Your task to perform on an android device: turn off smart reply in the gmail app Image 0: 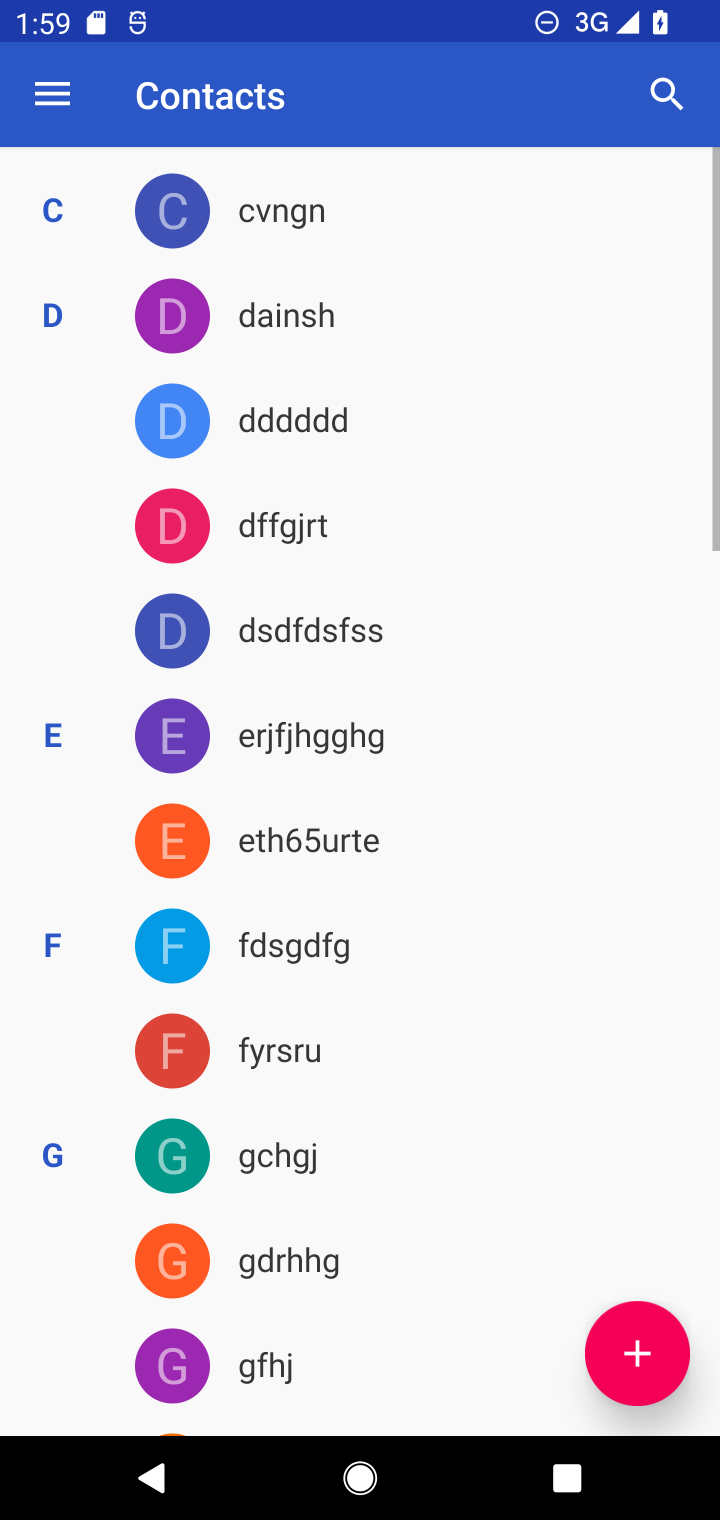
Step 0: press home button
Your task to perform on an android device: turn off smart reply in the gmail app Image 1: 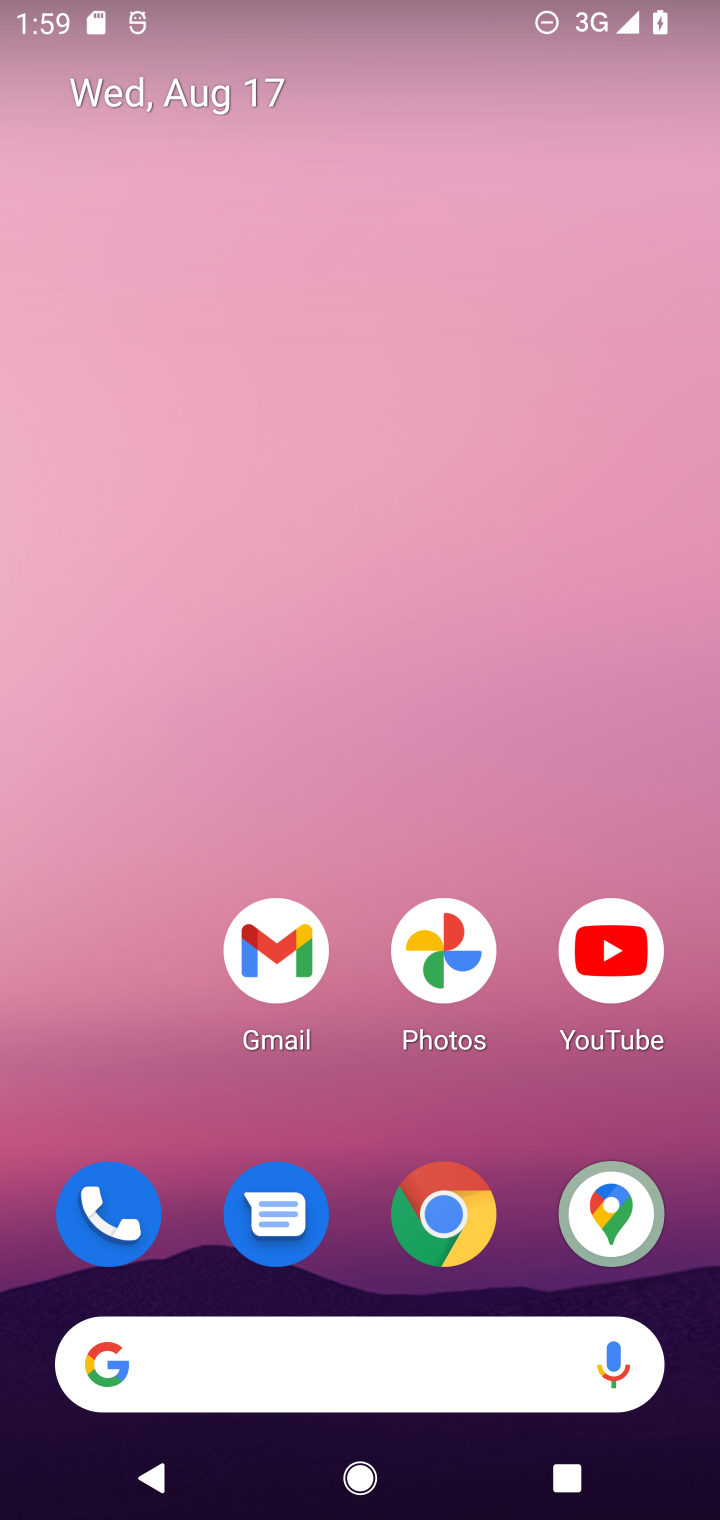
Step 1: click (272, 940)
Your task to perform on an android device: turn off smart reply in the gmail app Image 2: 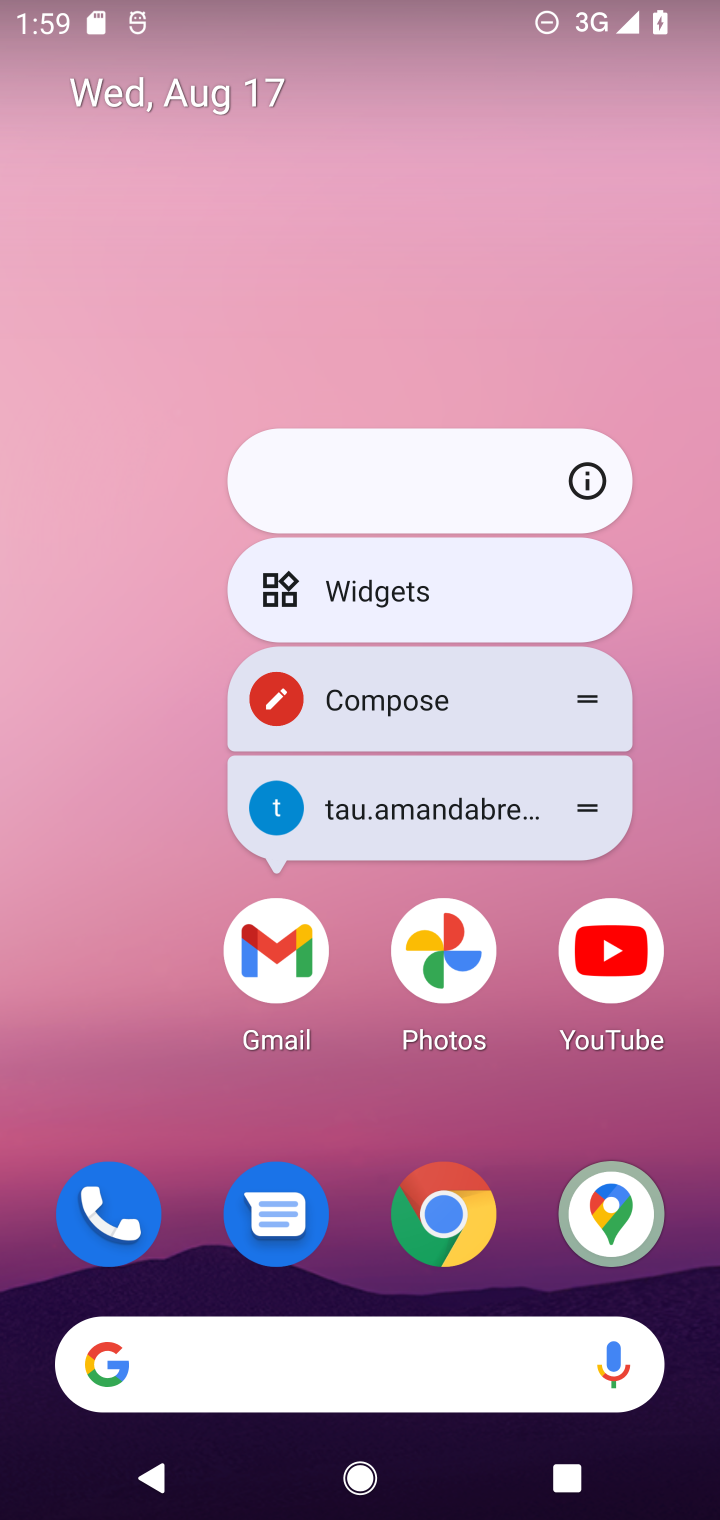
Step 2: click (272, 940)
Your task to perform on an android device: turn off smart reply in the gmail app Image 3: 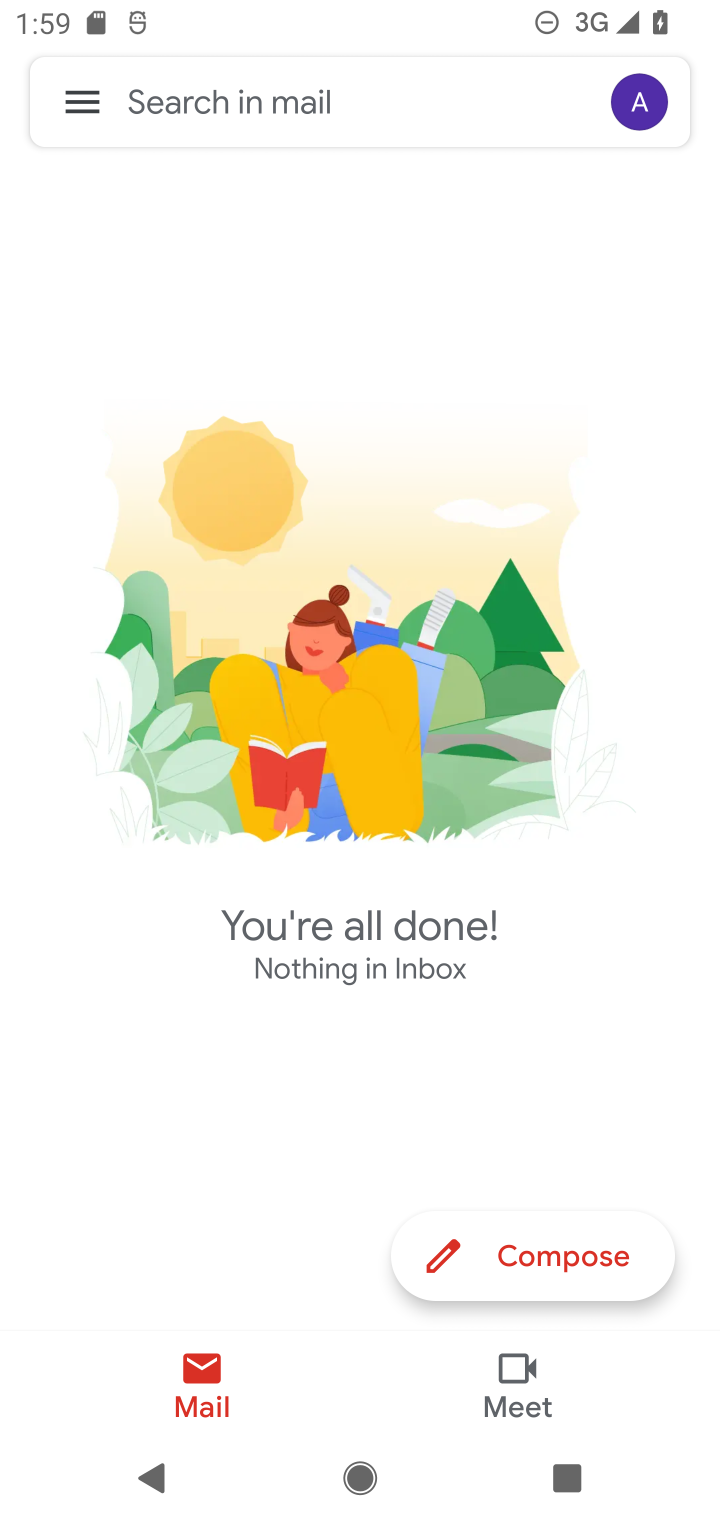
Step 3: click (80, 100)
Your task to perform on an android device: turn off smart reply in the gmail app Image 4: 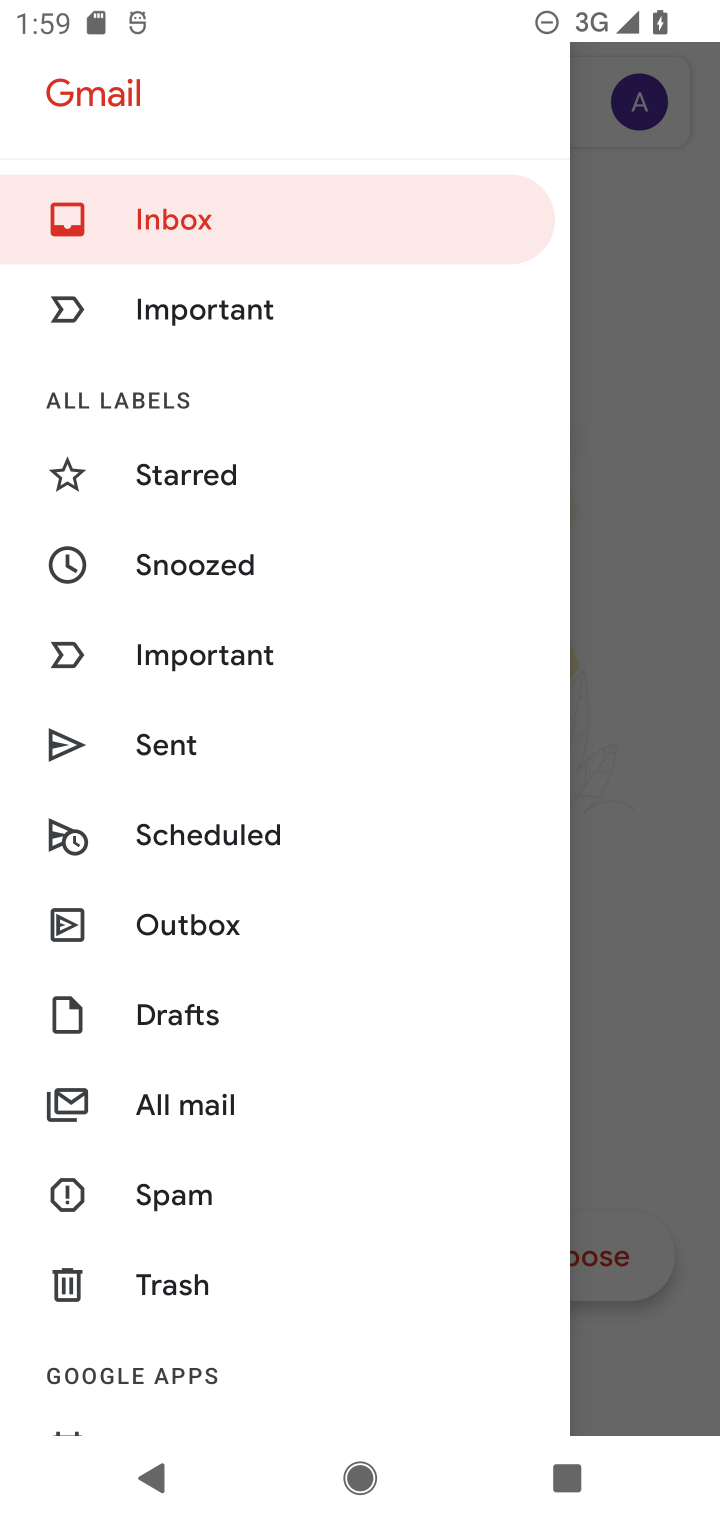
Step 4: drag from (270, 1247) to (272, 727)
Your task to perform on an android device: turn off smart reply in the gmail app Image 5: 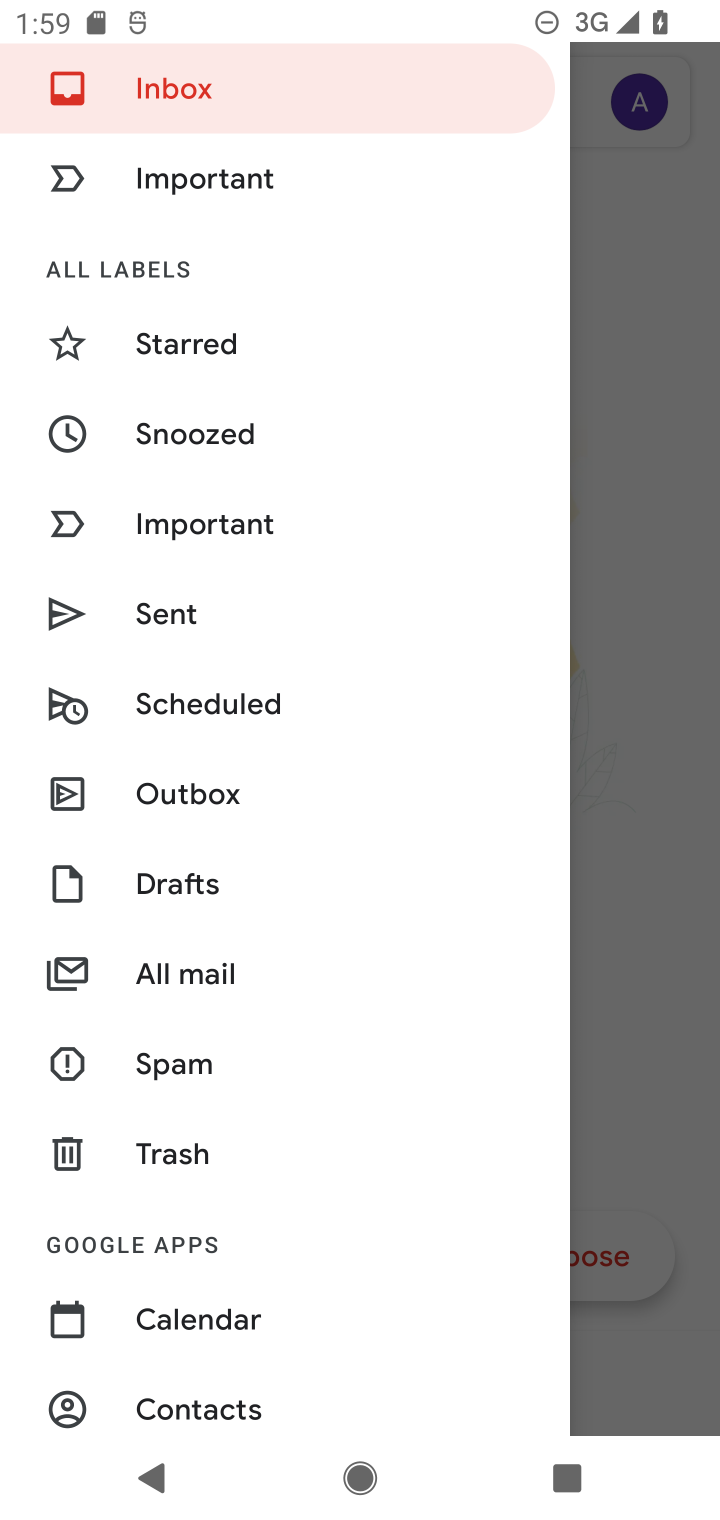
Step 5: drag from (335, 1296) to (332, 372)
Your task to perform on an android device: turn off smart reply in the gmail app Image 6: 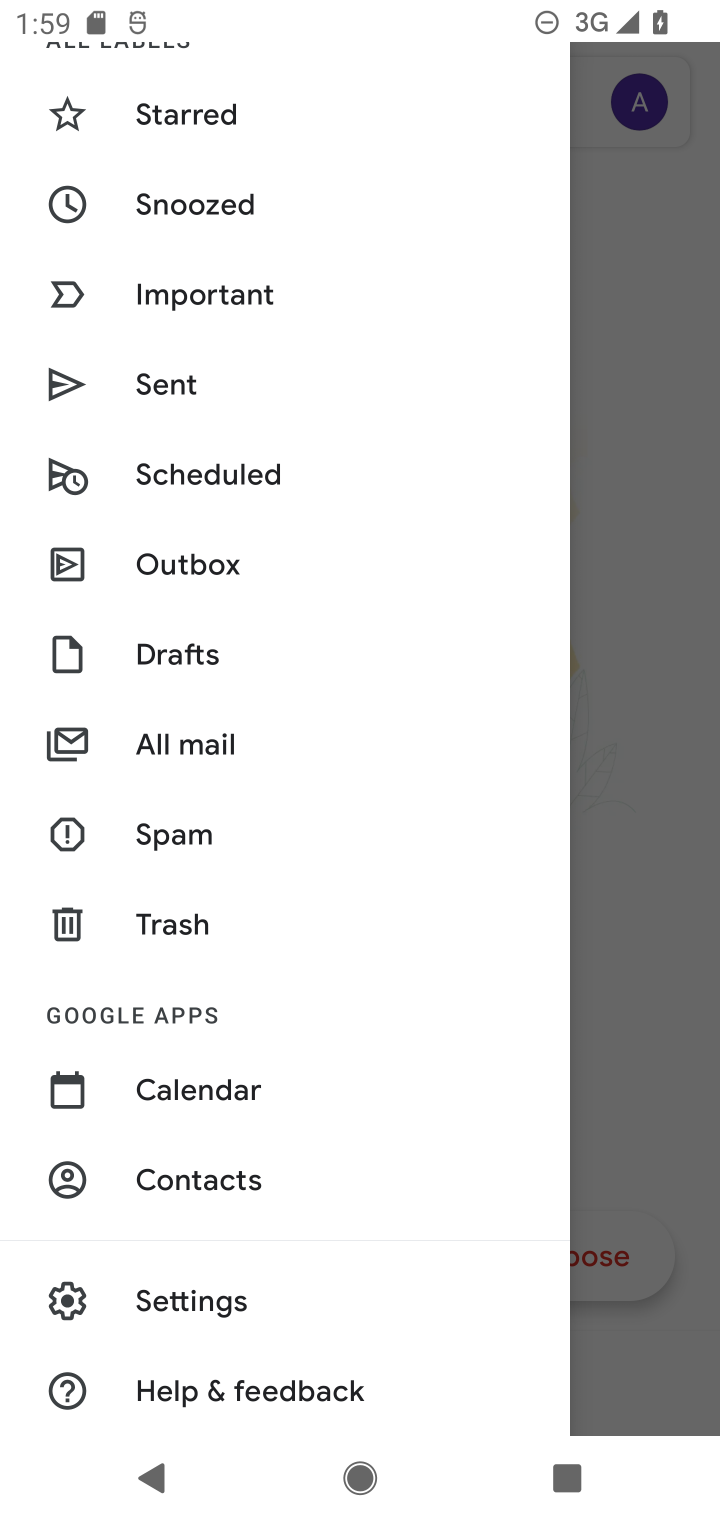
Step 6: click (192, 1294)
Your task to perform on an android device: turn off smart reply in the gmail app Image 7: 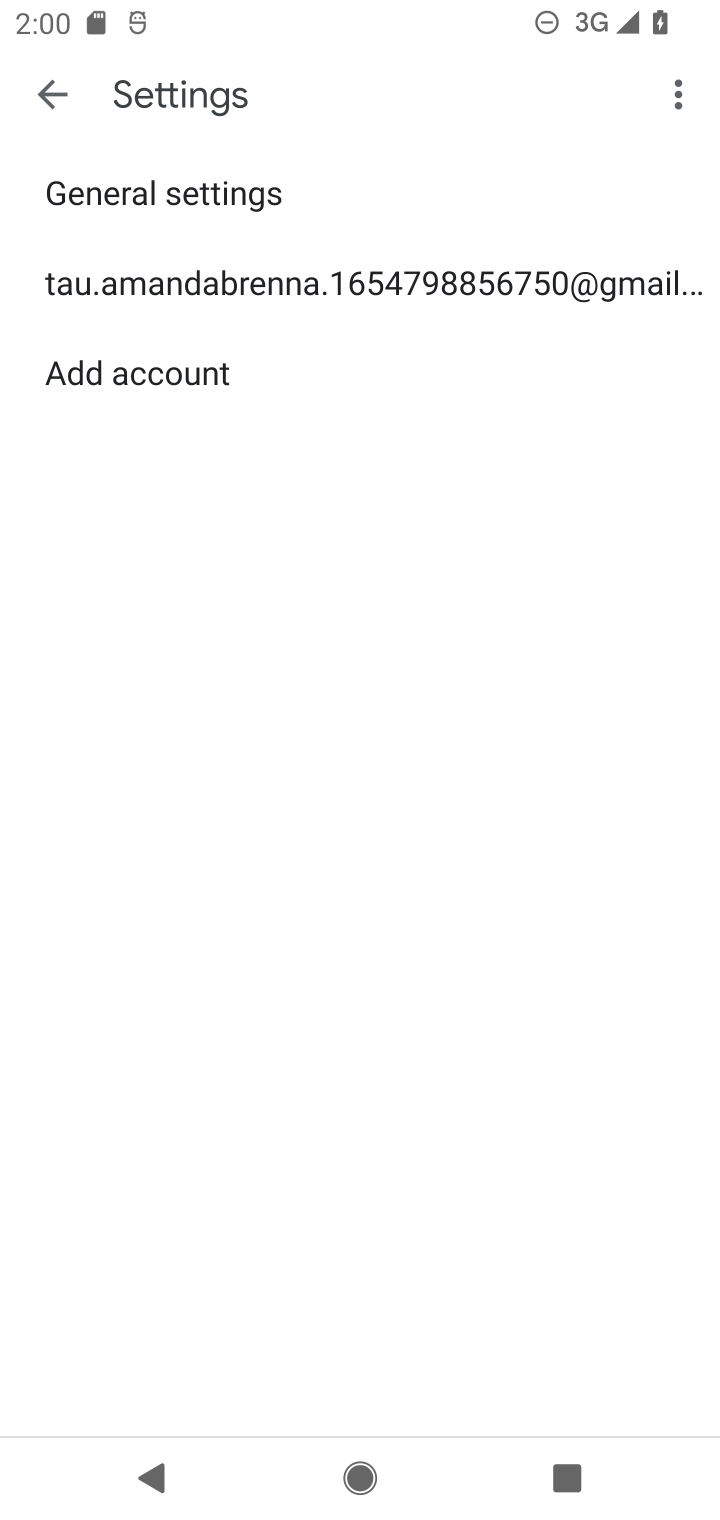
Step 7: click (255, 279)
Your task to perform on an android device: turn off smart reply in the gmail app Image 8: 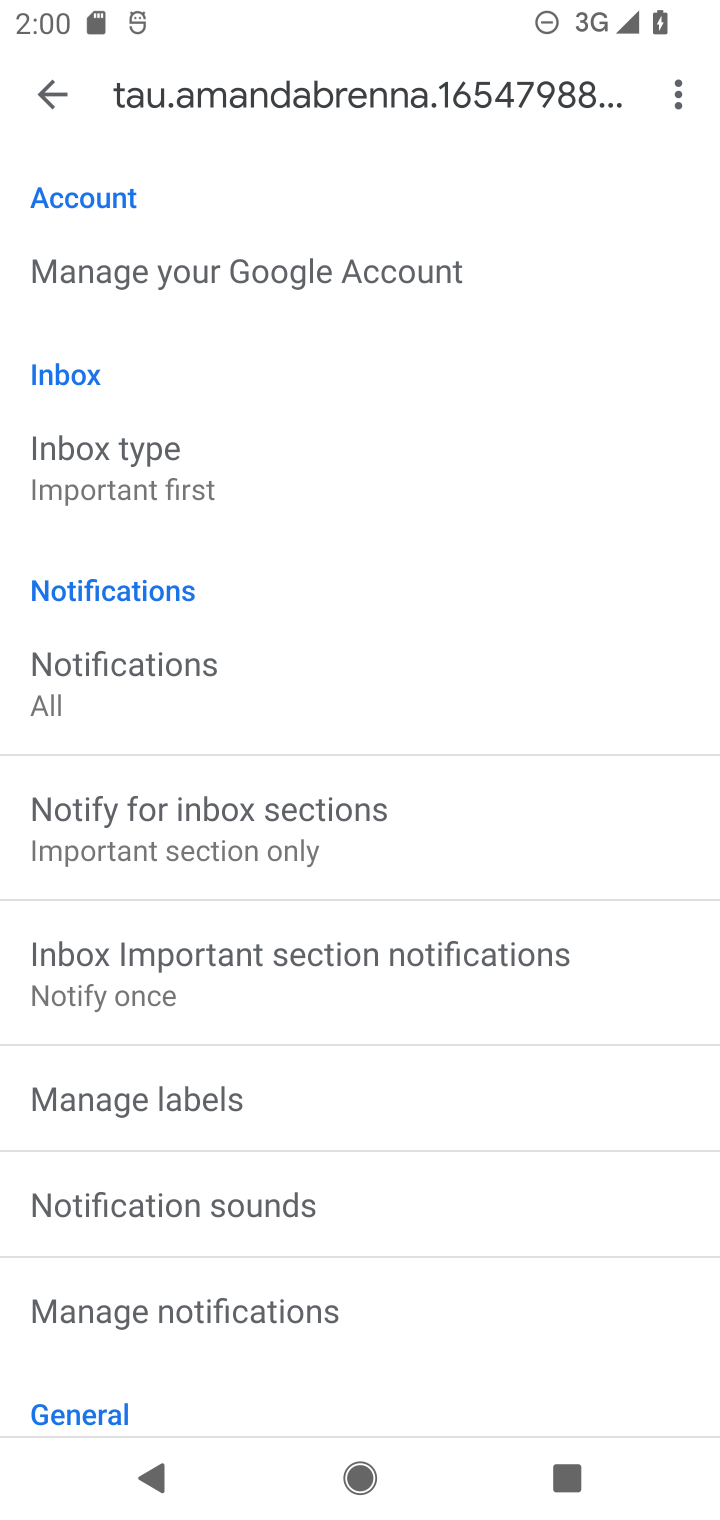
Step 8: task complete